Your task to perform on an android device: Open the Play Movies app and select the watchlist tab. Image 0: 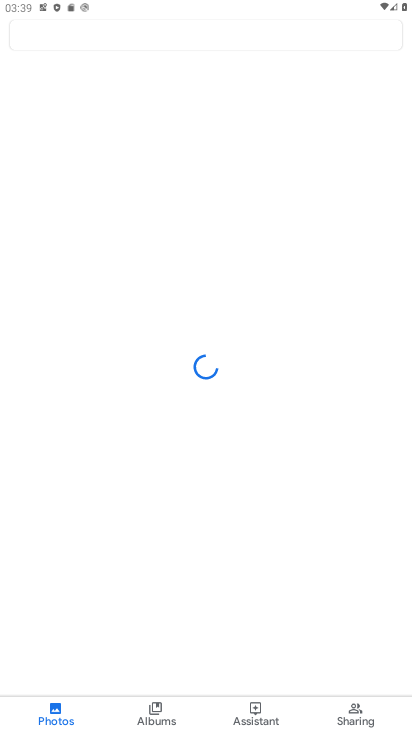
Step 0: press home button
Your task to perform on an android device: Open the Play Movies app and select the watchlist tab. Image 1: 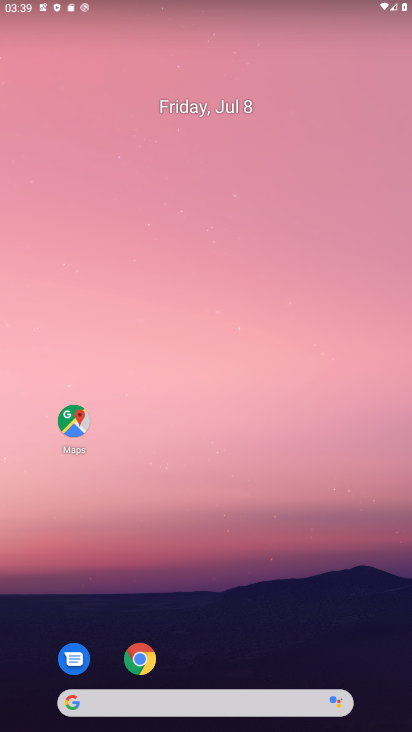
Step 1: drag from (171, 672) to (179, 220)
Your task to perform on an android device: Open the Play Movies app and select the watchlist tab. Image 2: 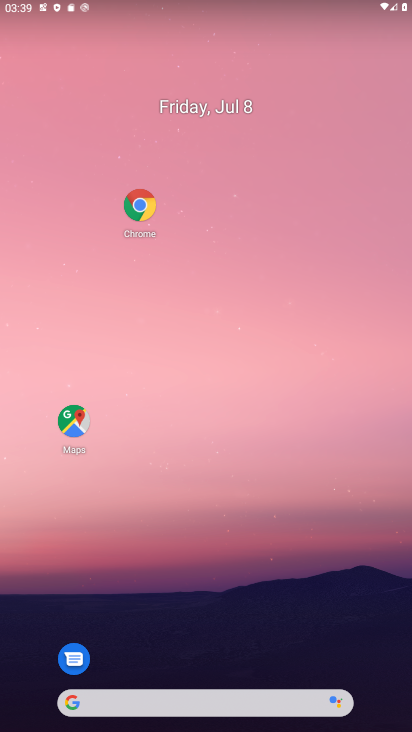
Step 2: drag from (218, 653) to (189, 173)
Your task to perform on an android device: Open the Play Movies app and select the watchlist tab. Image 3: 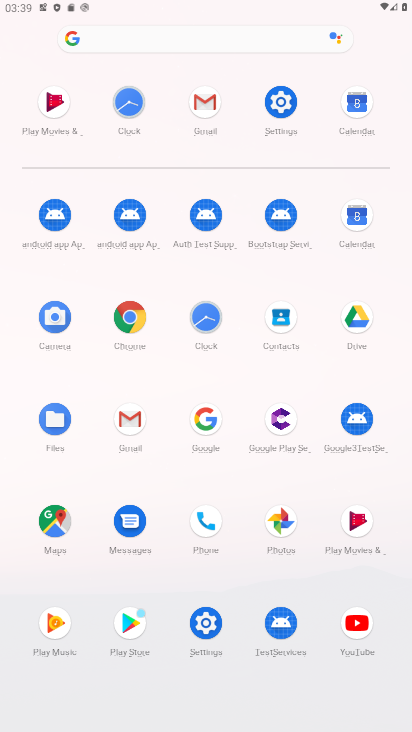
Step 3: click (368, 525)
Your task to perform on an android device: Open the Play Movies app and select the watchlist tab. Image 4: 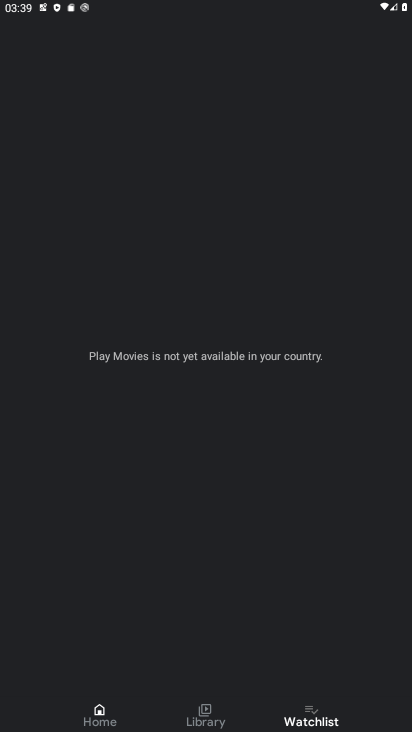
Step 4: click (302, 713)
Your task to perform on an android device: Open the Play Movies app and select the watchlist tab. Image 5: 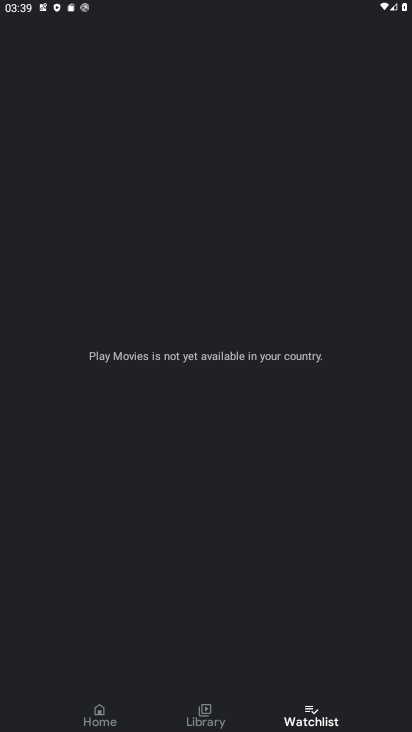
Step 5: click (310, 707)
Your task to perform on an android device: Open the Play Movies app and select the watchlist tab. Image 6: 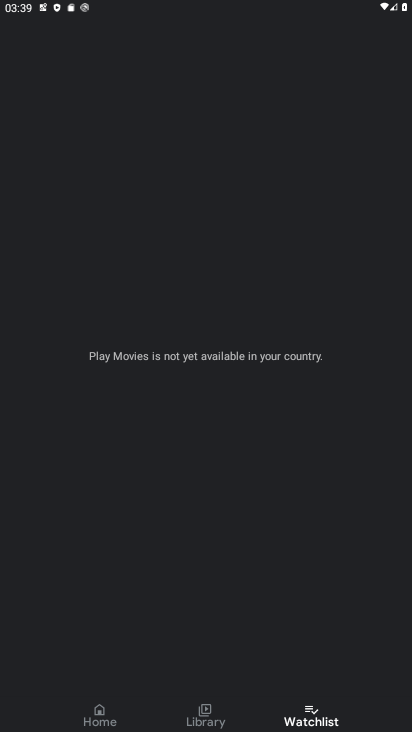
Step 6: task complete